Your task to perform on an android device: Is it going to rain today? Image 0: 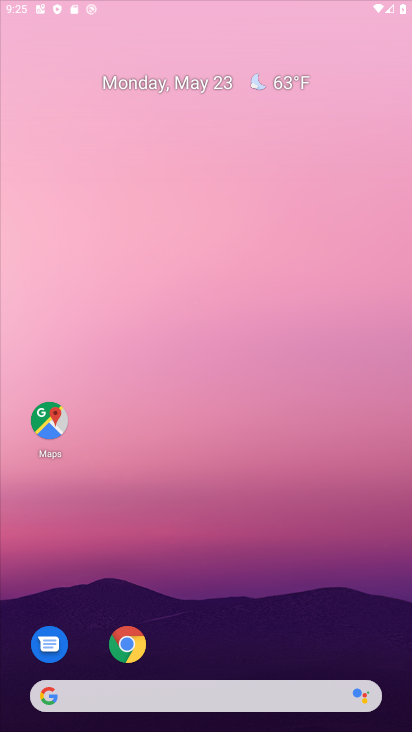
Step 0: press home button
Your task to perform on an android device: Is it going to rain today? Image 1: 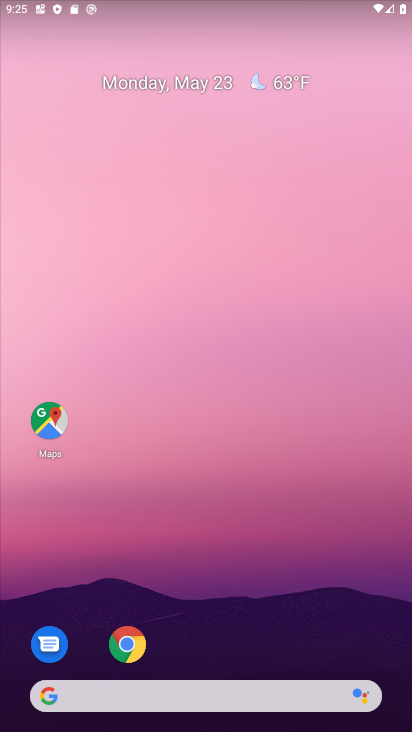
Step 1: drag from (200, 656) to (231, 134)
Your task to perform on an android device: Is it going to rain today? Image 2: 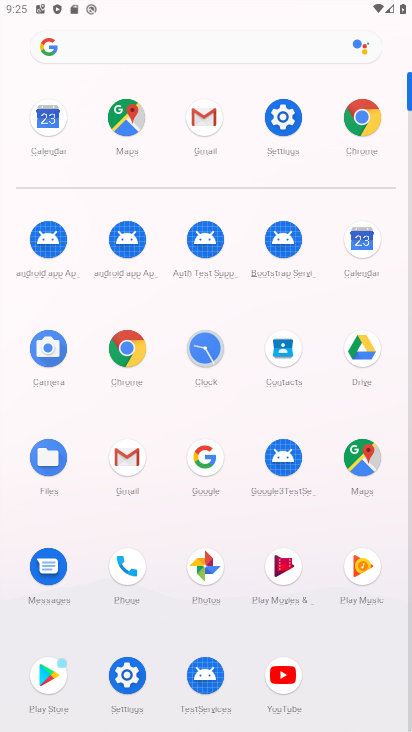
Step 2: press back button
Your task to perform on an android device: Is it going to rain today? Image 3: 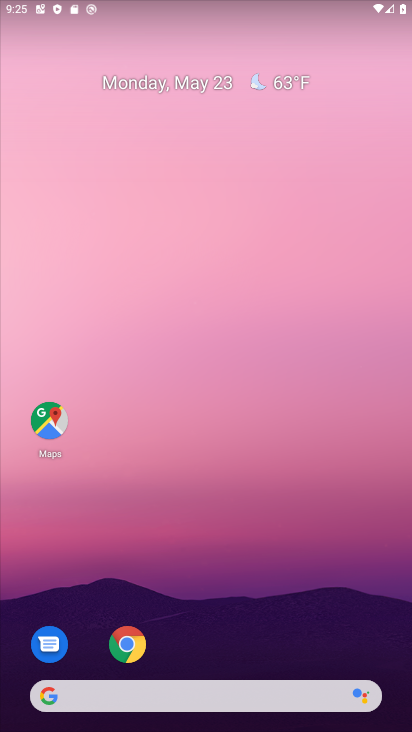
Step 3: click (290, 85)
Your task to perform on an android device: Is it going to rain today? Image 4: 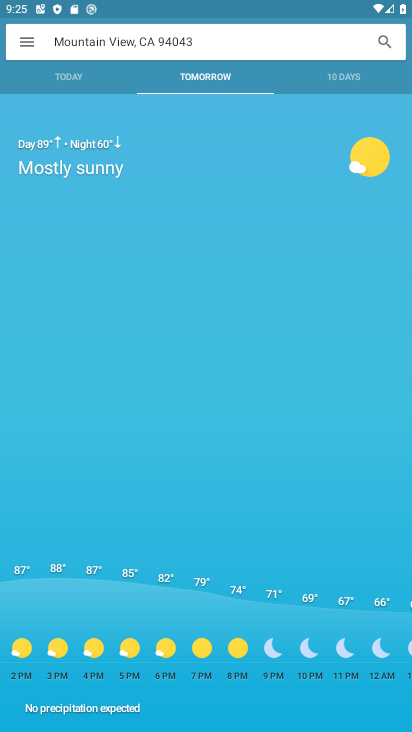
Step 4: click (62, 82)
Your task to perform on an android device: Is it going to rain today? Image 5: 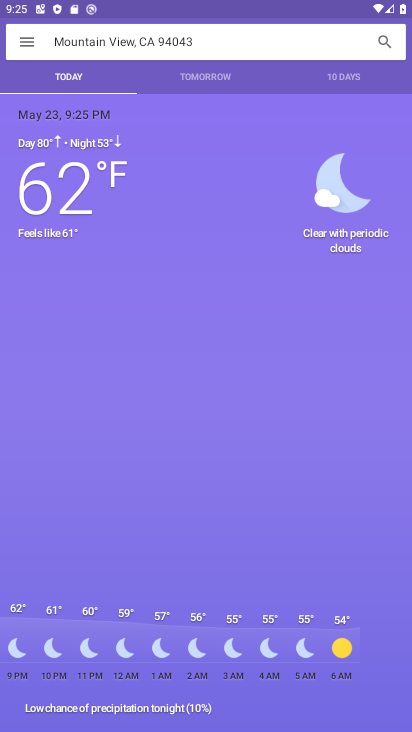
Step 5: task complete